Your task to perform on an android device: set default search engine in the chrome app Image 0: 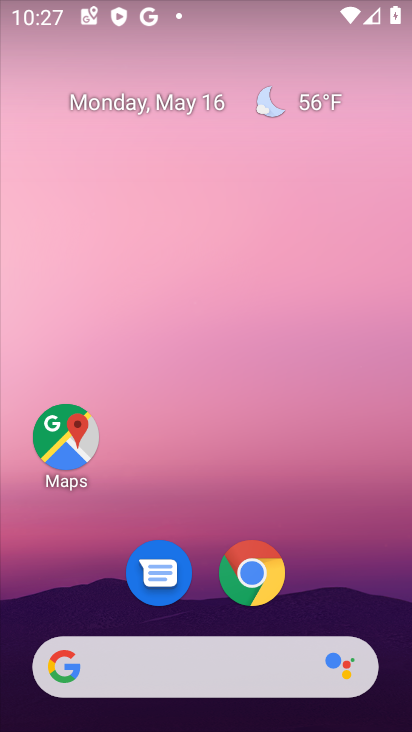
Step 0: click (261, 575)
Your task to perform on an android device: set default search engine in the chrome app Image 1: 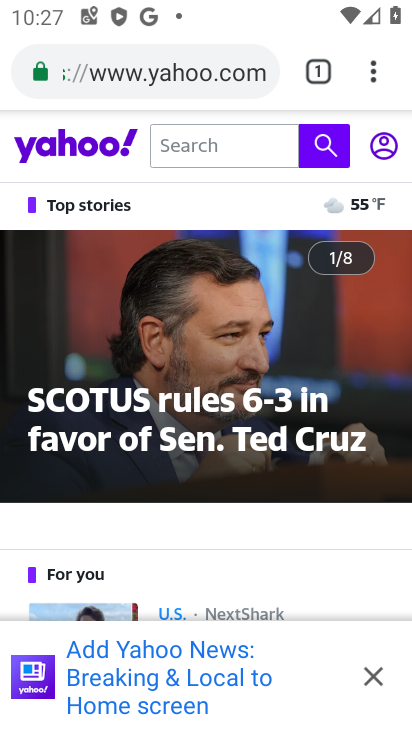
Step 1: click (377, 90)
Your task to perform on an android device: set default search engine in the chrome app Image 2: 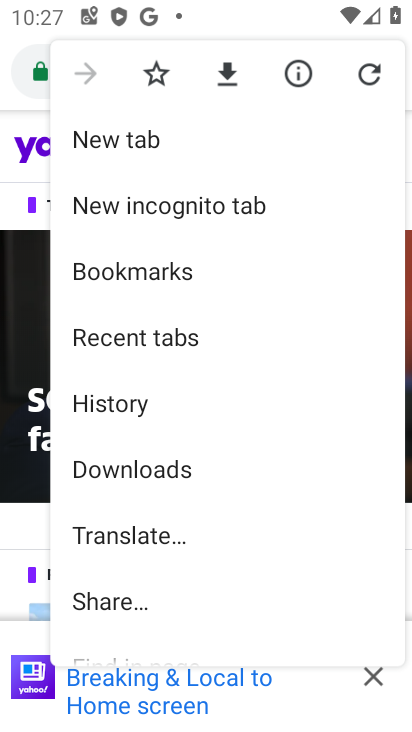
Step 2: drag from (274, 555) to (256, 318)
Your task to perform on an android device: set default search engine in the chrome app Image 3: 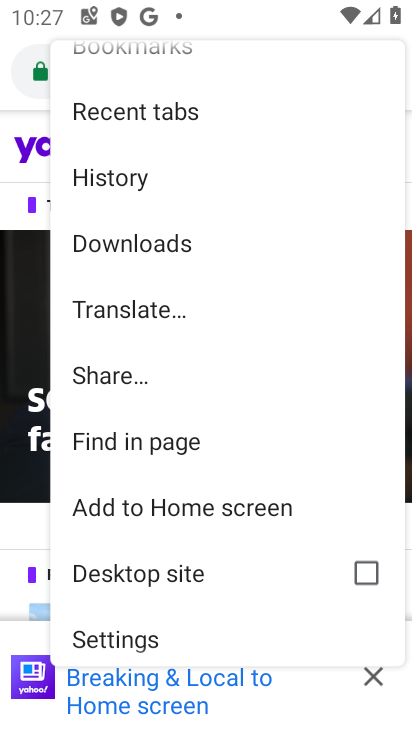
Step 3: click (152, 645)
Your task to perform on an android device: set default search engine in the chrome app Image 4: 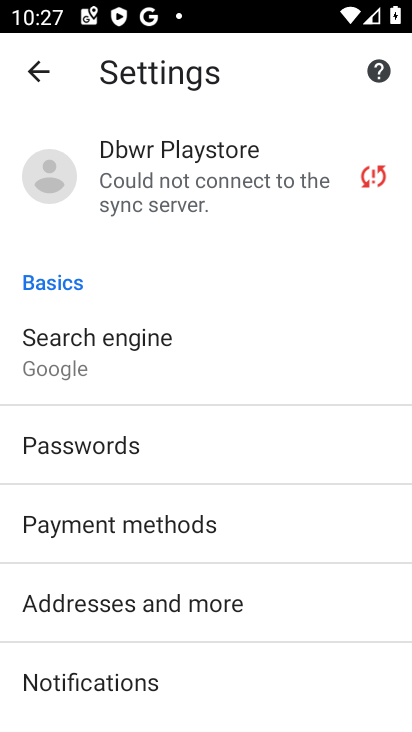
Step 4: click (169, 340)
Your task to perform on an android device: set default search engine in the chrome app Image 5: 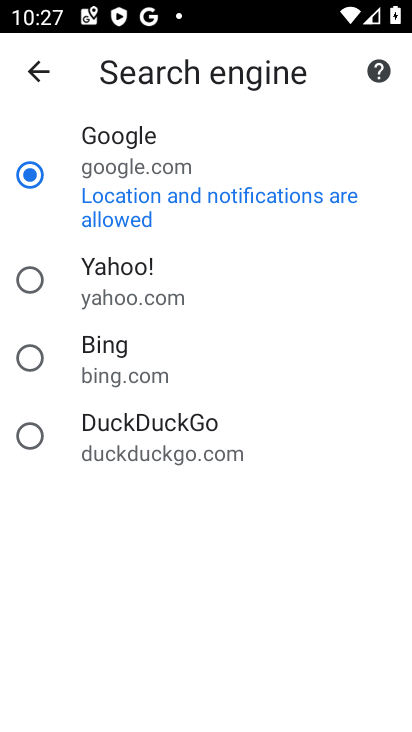
Step 5: click (198, 424)
Your task to perform on an android device: set default search engine in the chrome app Image 6: 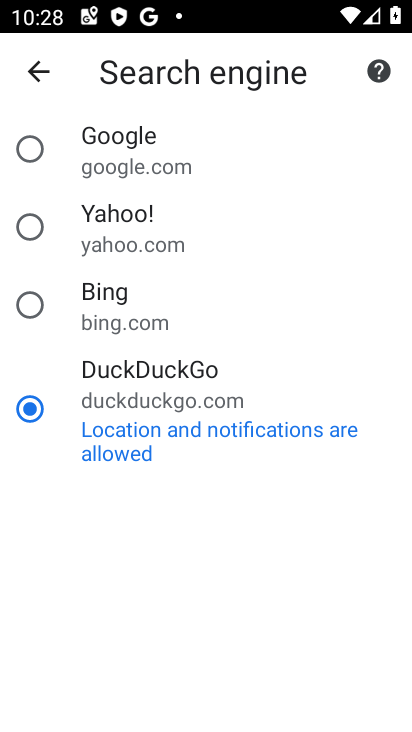
Step 6: task complete